Your task to perform on an android device: When is my next meeting? Image 0: 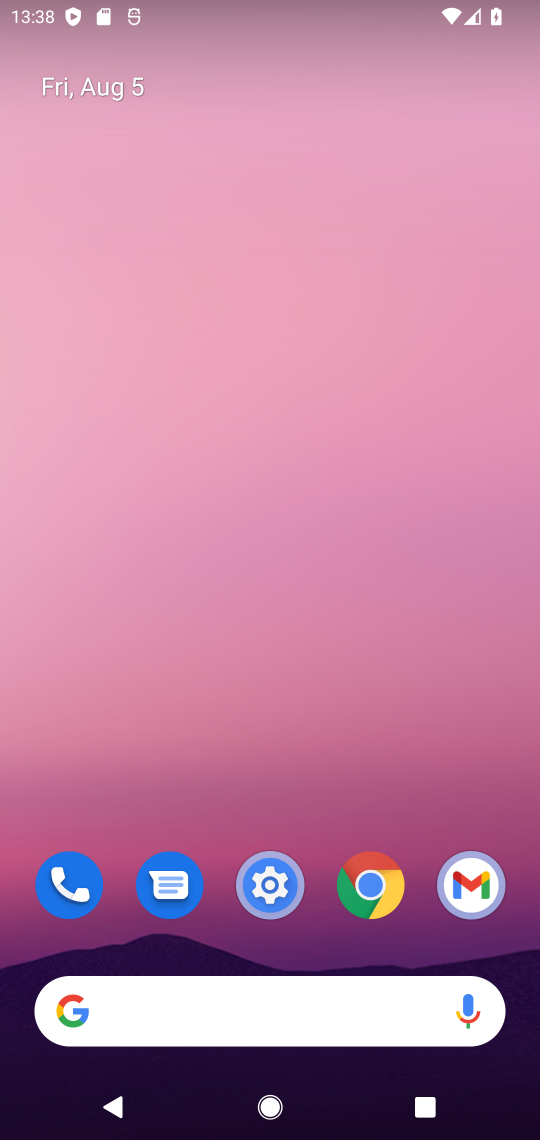
Step 0: drag from (338, 825) to (274, 204)
Your task to perform on an android device: When is my next meeting? Image 1: 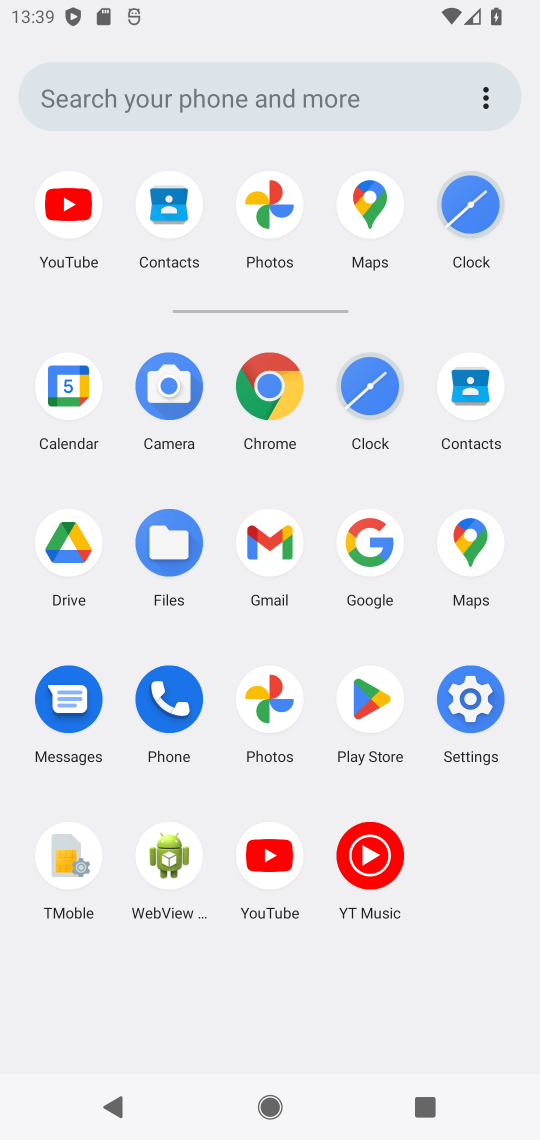
Step 1: click (82, 440)
Your task to perform on an android device: When is my next meeting? Image 2: 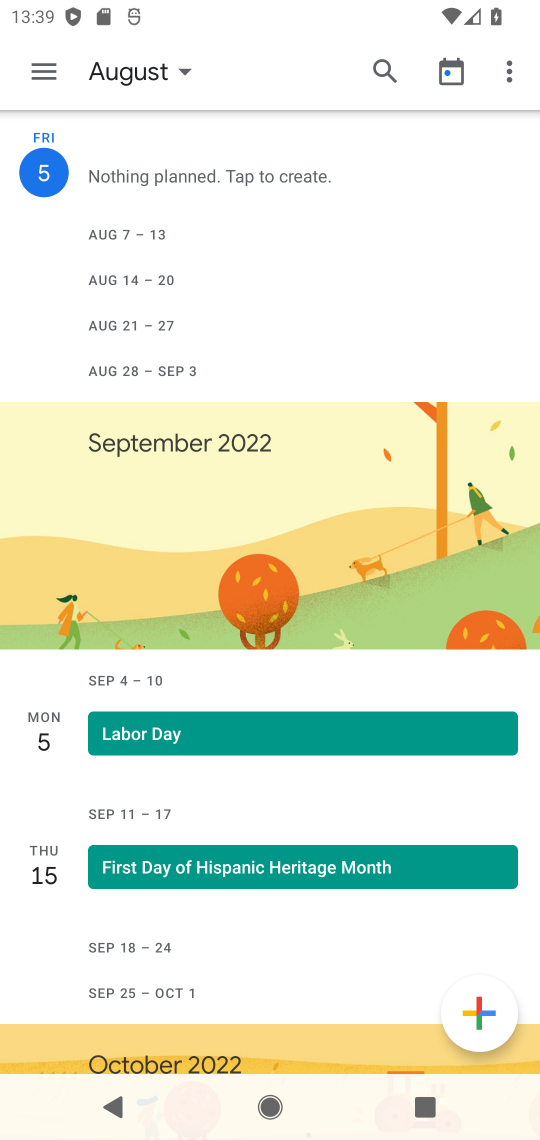
Step 2: drag from (281, 878) to (225, 248)
Your task to perform on an android device: When is my next meeting? Image 3: 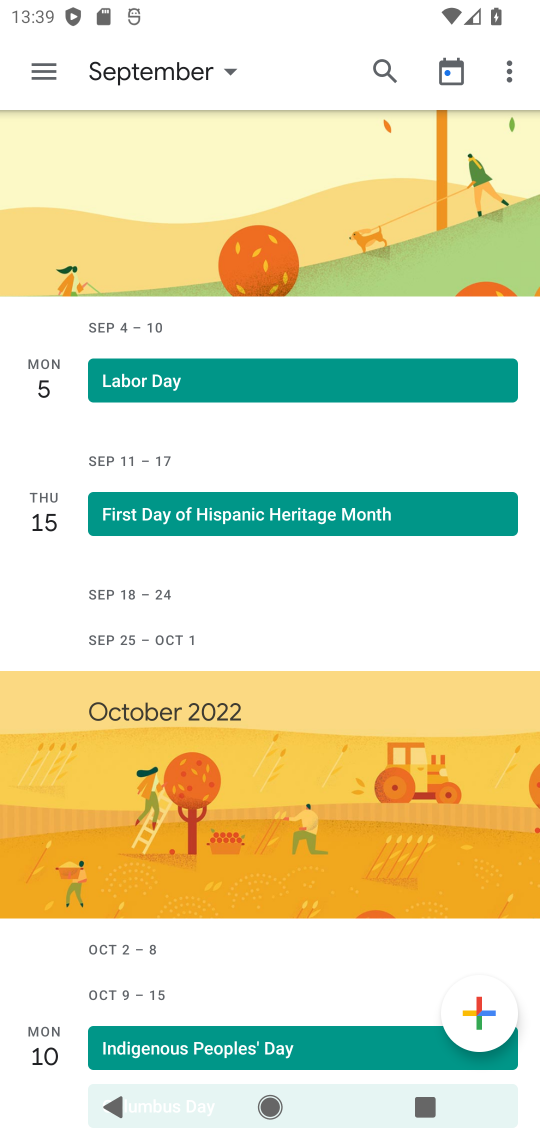
Step 3: drag from (247, 814) to (266, 540)
Your task to perform on an android device: When is my next meeting? Image 4: 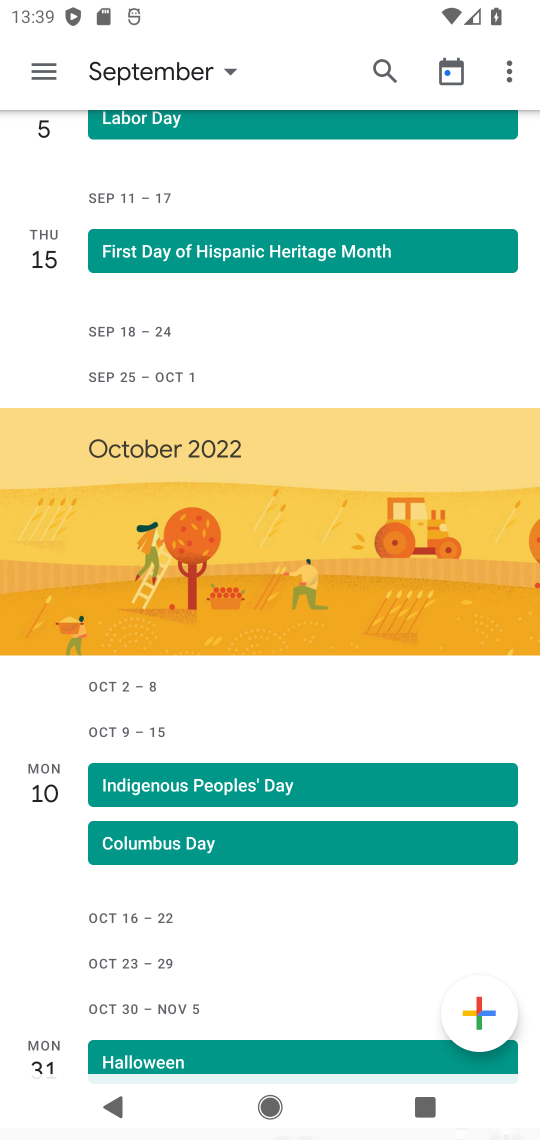
Step 4: drag from (271, 716) to (329, 199)
Your task to perform on an android device: When is my next meeting? Image 5: 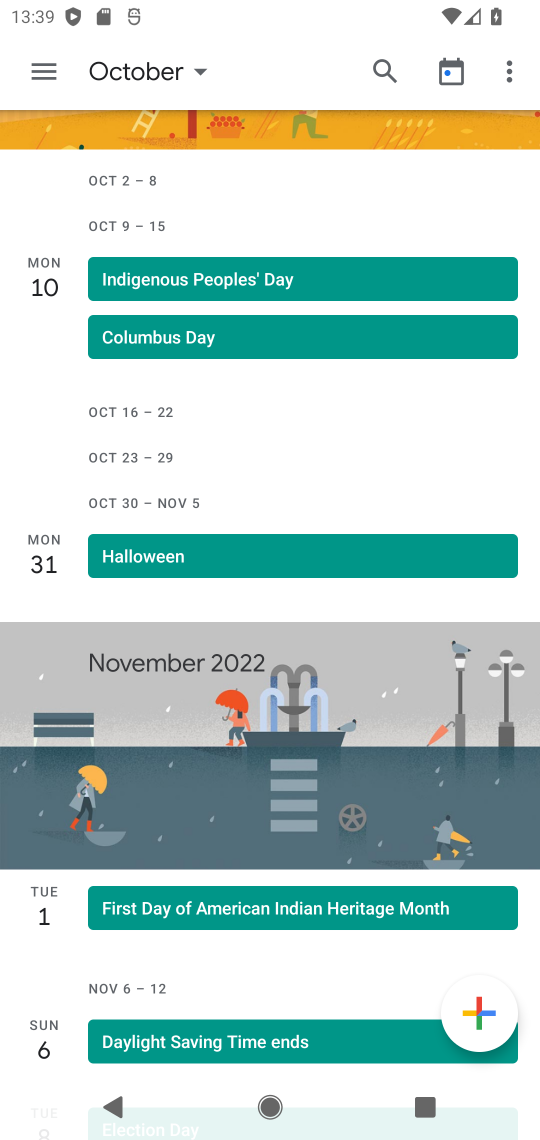
Step 5: drag from (296, 760) to (304, 229)
Your task to perform on an android device: When is my next meeting? Image 6: 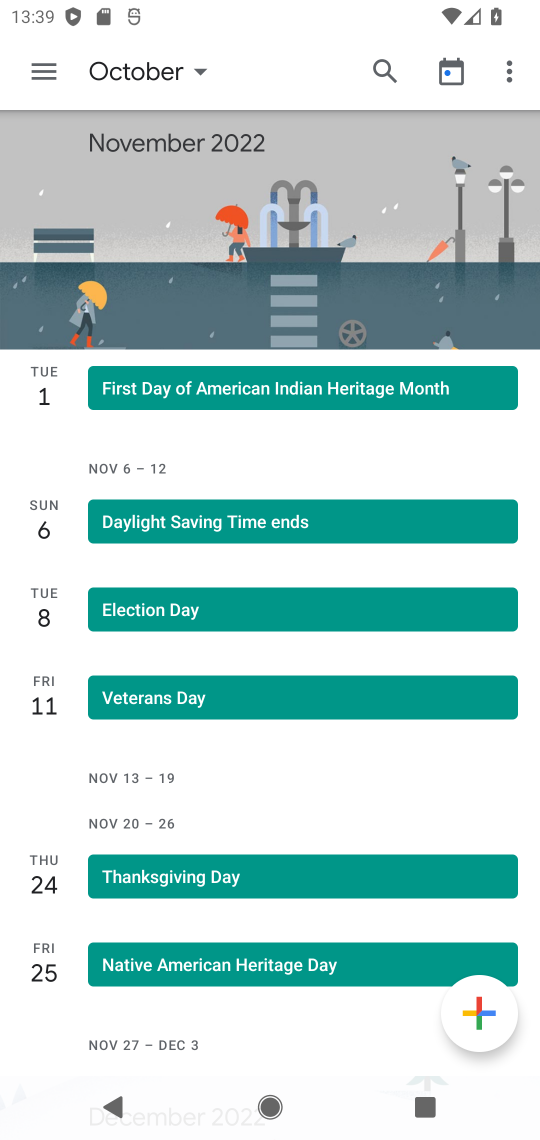
Step 6: click (282, 847)
Your task to perform on an android device: When is my next meeting? Image 7: 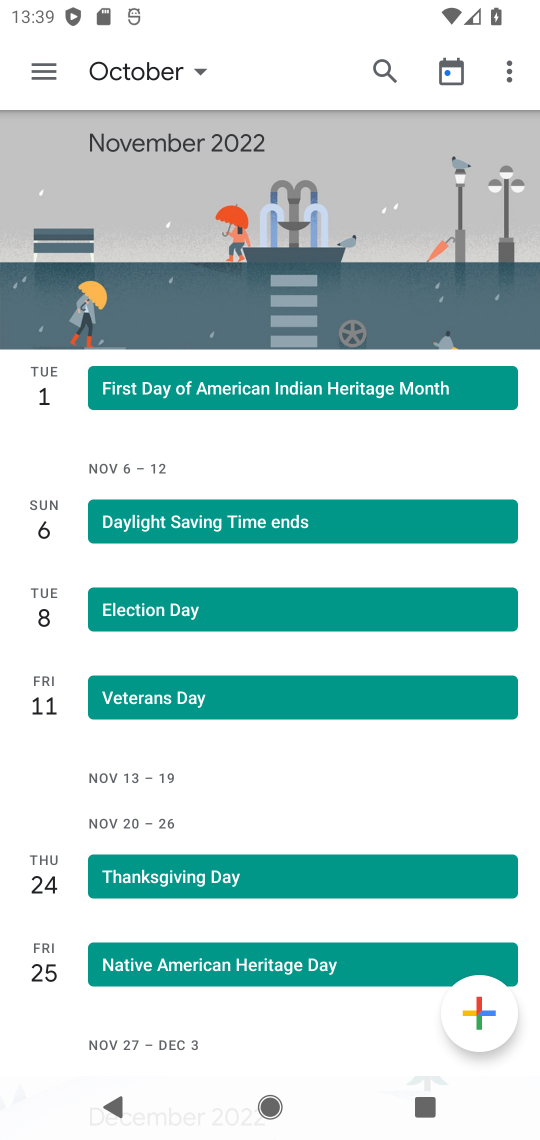
Step 7: task complete